Your task to perform on an android device: Open the calendar app, open the side menu, and click the "Day" option Image 0: 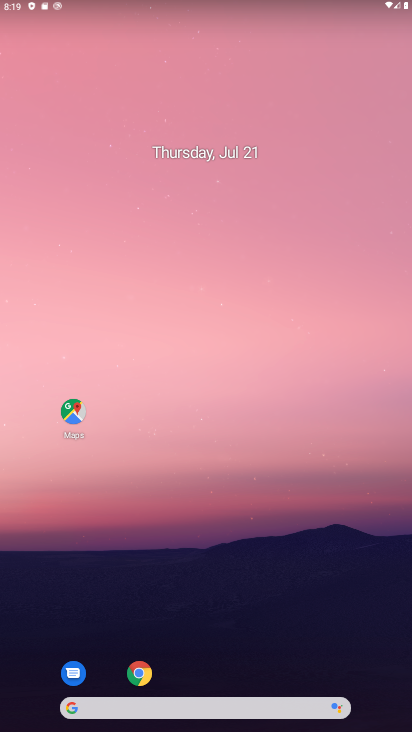
Step 0: drag from (158, 721) to (125, 204)
Your task to perform on an android device: Open the calendar app, open the side menu, and click the "Day" option Image 1: 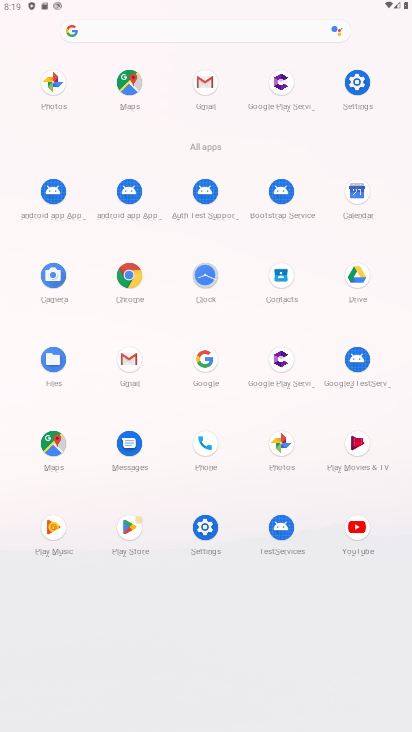
Step 1: click (358, 186)
Your task to perform on an android device: Open the calendar app, open the side menu, and click the "Day" option Image 2: 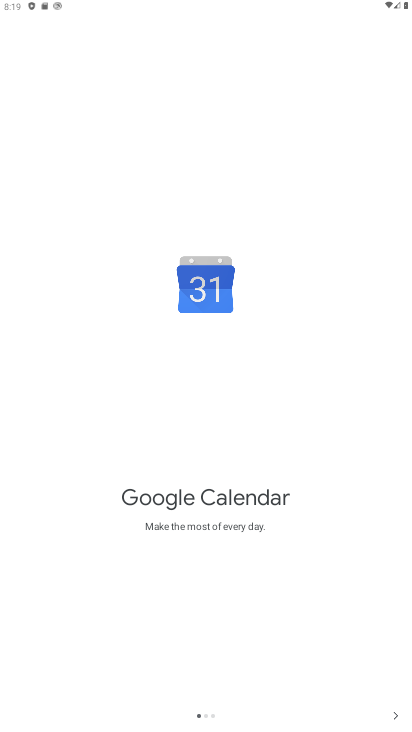
Step 2: click (396, 714)
Your task to perform on an android device: Open the calendar app, open the side menu, and click the "Day" option Image 3: 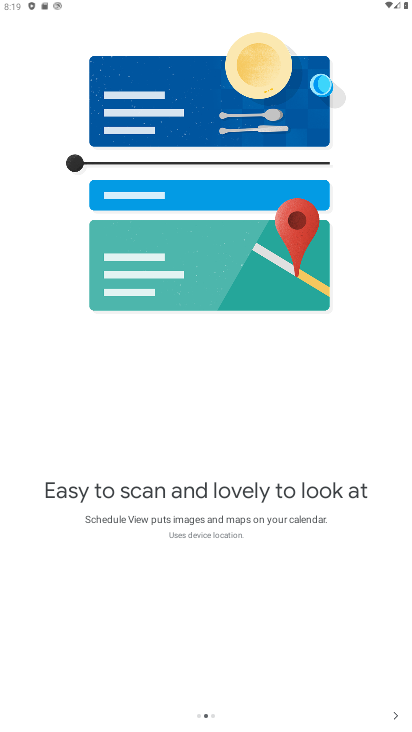
Step 3: click (393, 716)
Your task to perform on an android device: Open the calendar app, open the side menu, and click the "Day" option Image 4: 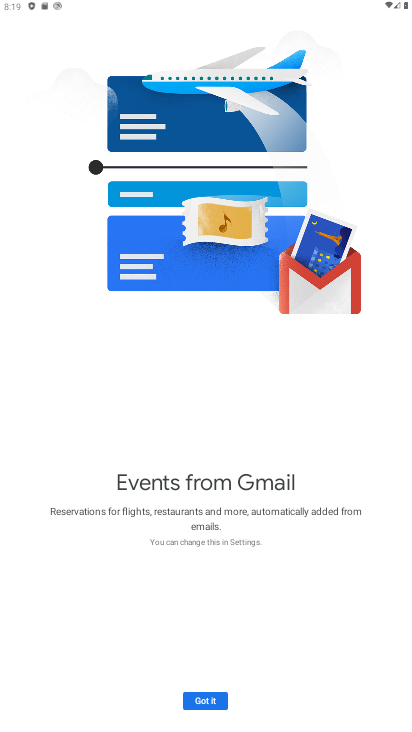
Step 4: click (216, 695)
Your task to perform on an android device: Open the calendar app, open the side menu, and click the "Day" option Image 5: 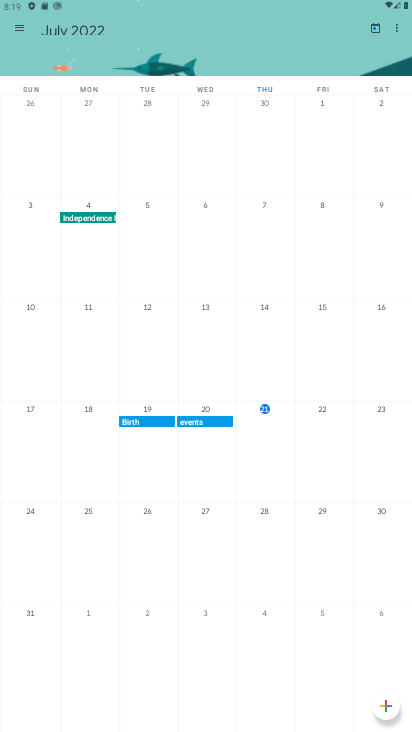
Step 5: click (18, 29)
Your task to perform on an android device: Open the calendar app, open the side menu, and click the "Day" option Image 6: 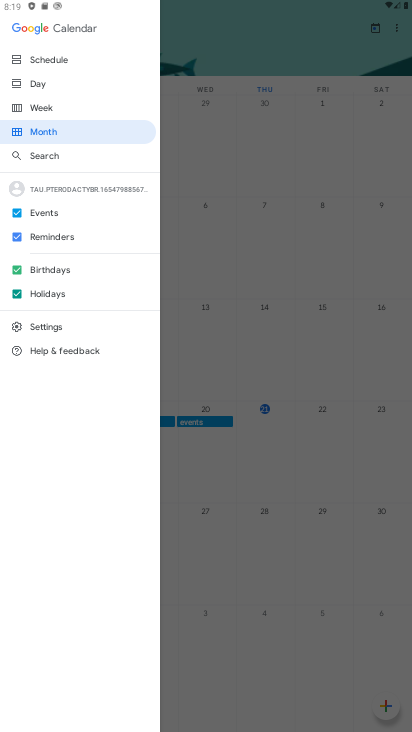
Step 6: click (38, 81)
Your task to perform on an android device: Open the calendar app, open the side menu, and click the "Day" option Image 7: 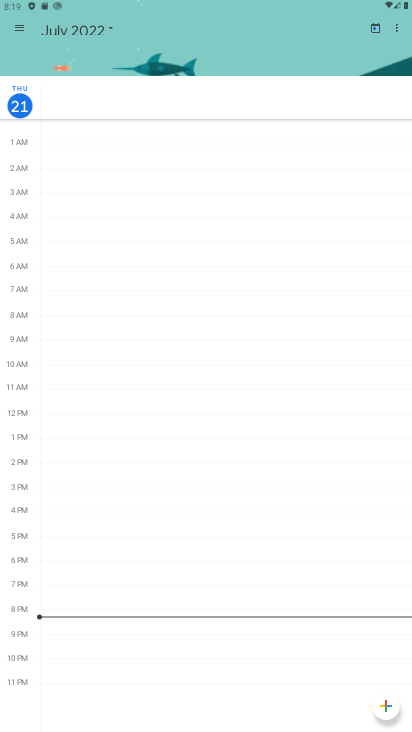
Step 7: task complete